Your task to perform on an android device: View the shopping cart on ebay. Search for "usb-c" on ebay, select the first entry, and add it to the cart. Image 0: 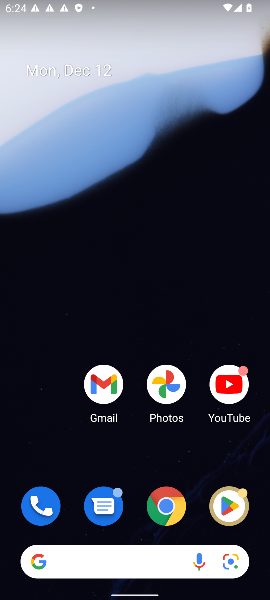
Step 0: click (172, 567)
Your task to perform on an android device: View the shopping cart on ebay. Search for "usb-c" on ebay, select the first entry, and add it to the cart. Image 1: 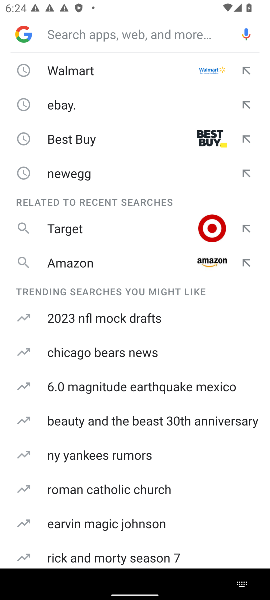
Step 1: click (98, 108)
Your task to perform on an android device: View the shopping cart on ebay. Search for "usb-c" on ebay, select the first entry, and add it to the cart. Image 2: 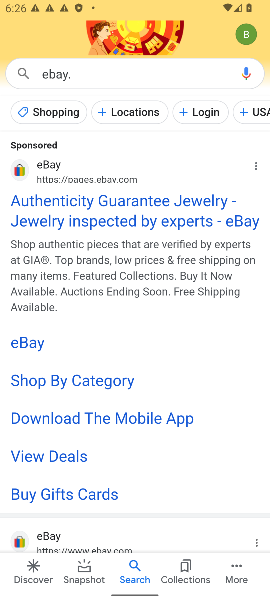
Step 2: click (15, 349)
Your task to perform on an android device: View the shopping cart on ebay. Search for "usb-c" on ebay, select the first entry, and add it to the cart. Image 3: 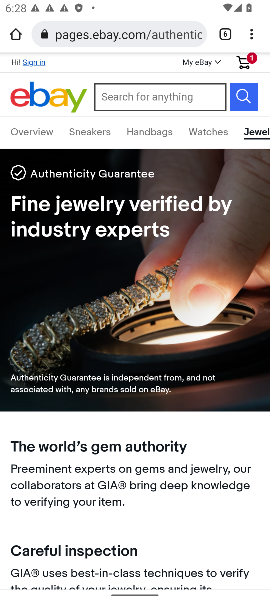
Step 3: click (107, 102)
Your task to perform on an android device: View the shopping cart on ebay. Search for "usb-c" on ebay, select the first entry, and add it to the cart. Image 4: 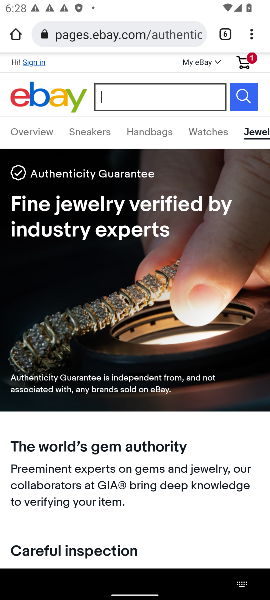
Step 4: type "usb-c "
Your task to perform on an android device: View the shopping cart on ebay. Search for "usb-c" on ebay, select the first entry, and add it to the cart. Image 5: 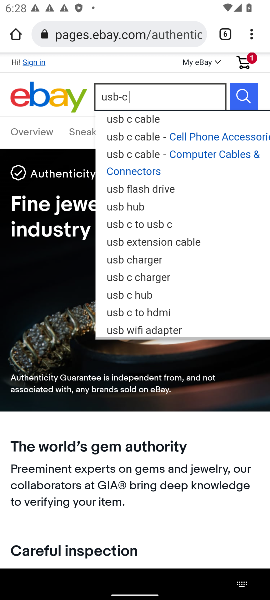
Step 5: click (133, 113)
Your task to perform on an android device: View the shopping cart on ebay. Search for "usb-c" on ebay, select the first entry, and add it to the cart. Image 6: 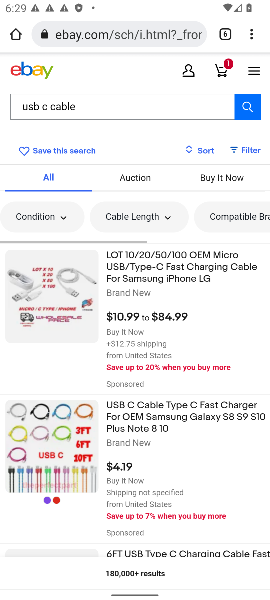
Step 6: click (123, 265)
Your task to perform on an android device: View the shopping cart on ebay. Search for "usb-c" on ebay, select the first entry, and add it to the cart. Image 7: 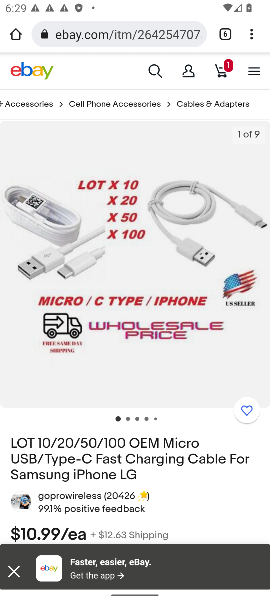
Step 7: click (218, 505)
Your task to perform on an android device: View the shopping cart on ebay. Search for "usb-c" on ebay, select the first entry, and add it to the cart. Image 8: 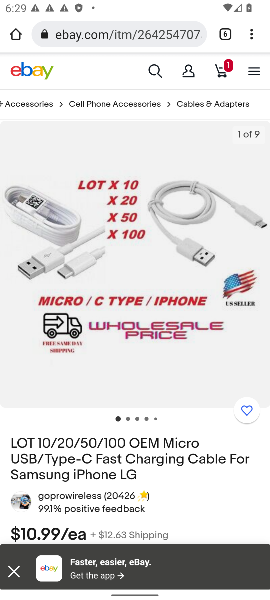
Step 8: drag from (218, 505) to (195, 242)
Your task to perform on an android device: View the shopping cart on ebay. Search for "usb-c" on ebay, select the first entry, and add it to the cart. Image 9: 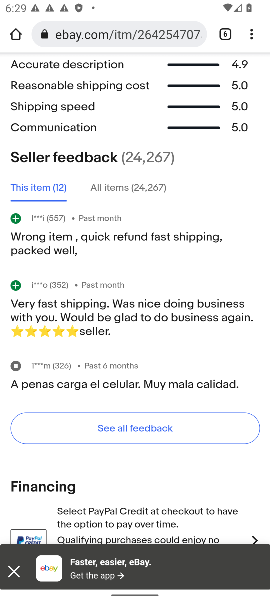
Step 9: click (197, 436)
Your task to perform on an android device: View the shopping cart on ebay. Search for "usb-c" on ebay, select the first entry, and add it to the cart. Image 10: 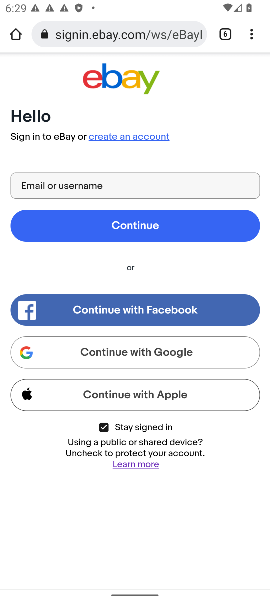
Step 10: task complete